Your task to perform on an android device: toggle improve location accuracy Image 0: 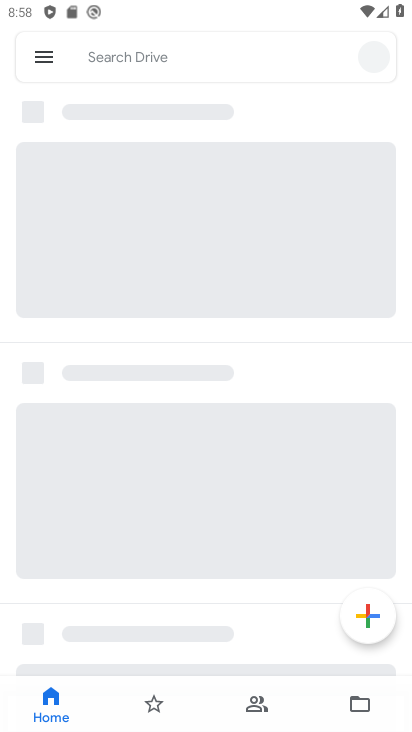
Step 0: press back button
Your task to perform on an android device: toggle improve location accuracy Image 1: 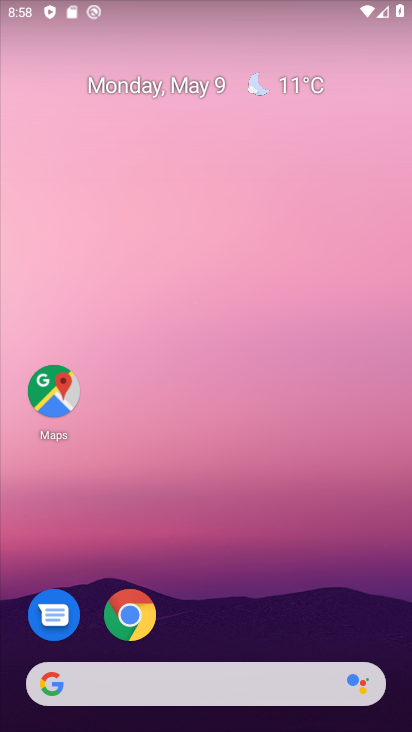
Step 1: drag from (246, 383) to (224, 0)
Your task to perform on an android device: toggle improve location accuracy Image 2: 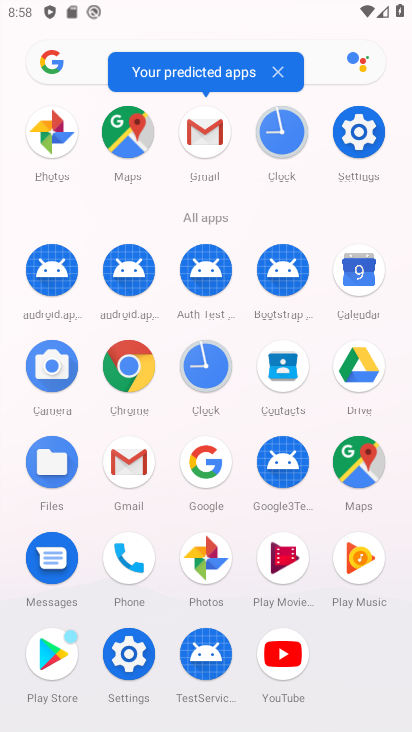
Step 2: drag from (13, 596) to (28, 265)
Your task to perform on an android device: toggle improve location accuracy Image 3: 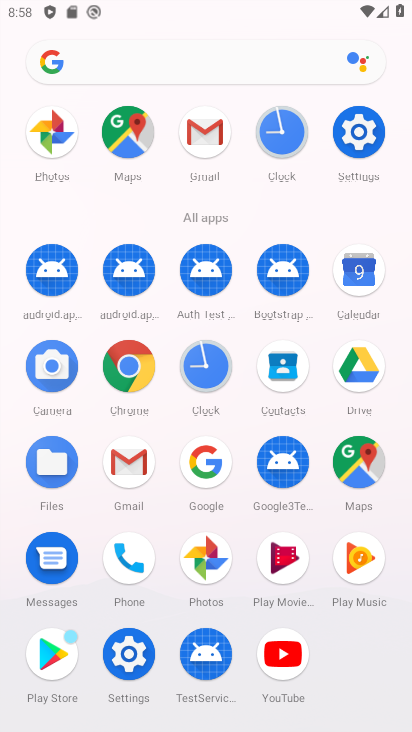
Step 3: click (356, 463)
Your task to perform on an android device: toggle improve location accuracy Image 4: 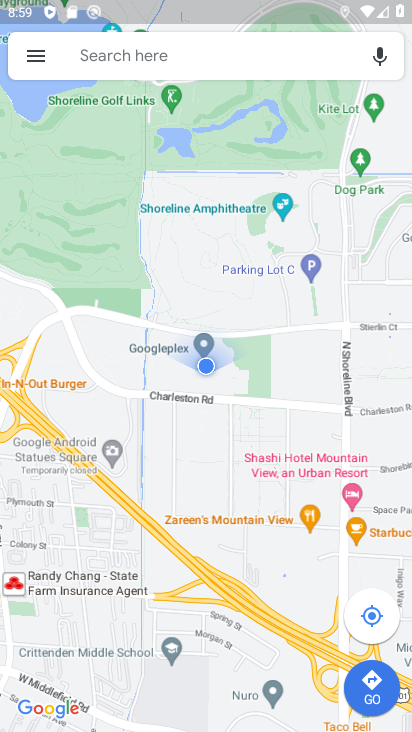
Step 4: click (26, 58)
Your task to perform on an android device: toggle improve location accuracy Image 5: 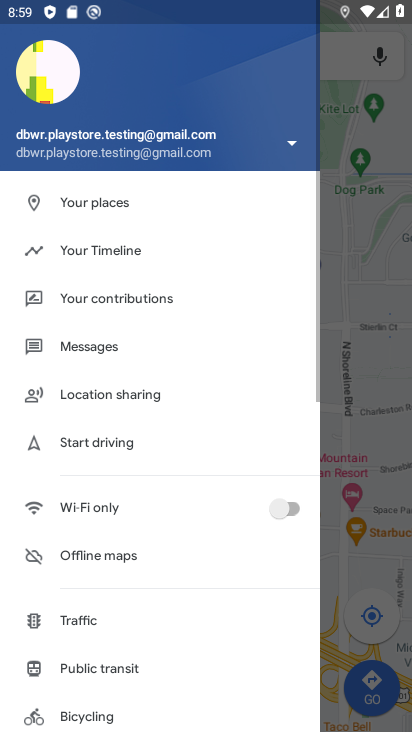
Step 5: drag from (143, 597) to (158, 193)
Your task to perform on an android device: toggle improve location accuracy Image 6: 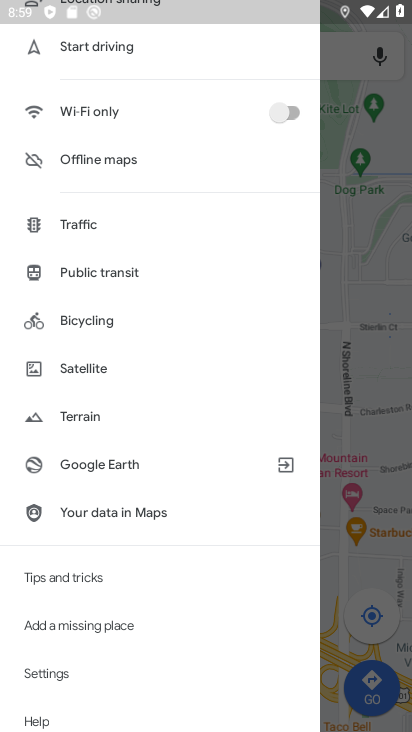
Step 6: click (91, 680)
Your task to perform on an android device: toggle improve location accuracy Image 7: 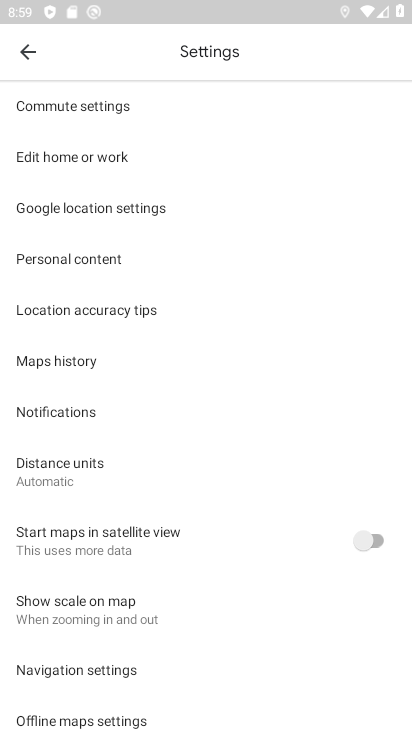
Step 7: click (205, 635)
Your task to perform on an android device: toggle improve location accuracy Image 8: 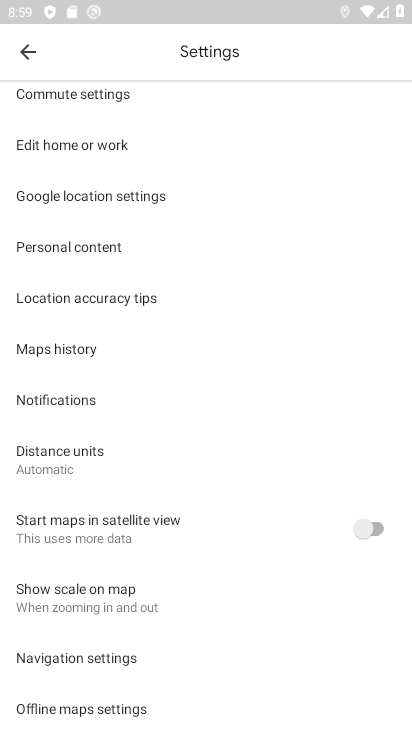
Step 8: click (129, 199)
Your task to perform on an android device: toggle improve location accuracy Image 9: 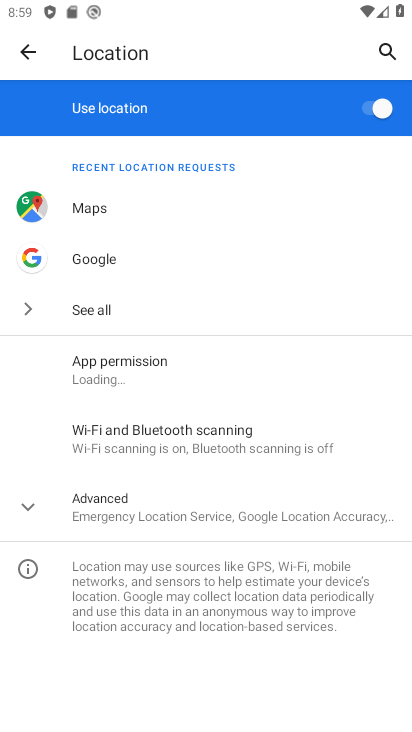
Step 9: click (171, 509)
Your task to perform on an android device: toggle improve location accuracy Image 10: 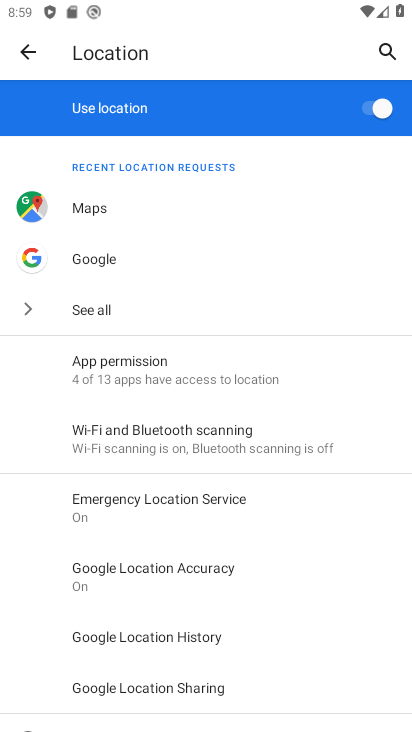
Step 10: click (212, 567)
Your task to perform on an android device: toggle improve location accuracy Image 11: 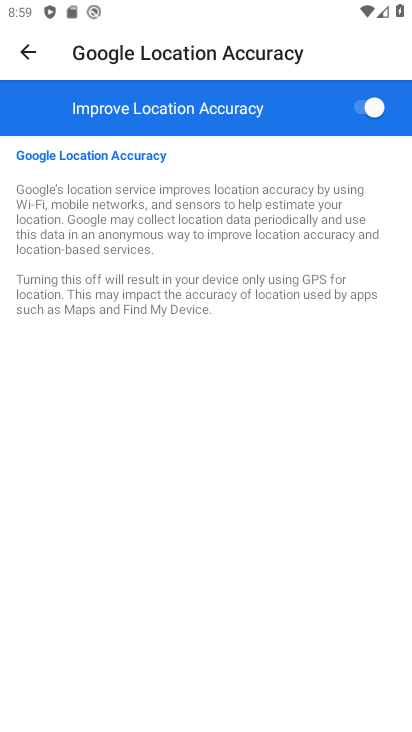
Step 11: click (363, 102)
Your task to perform on an android device: toggle improve location accuracy Image 12: 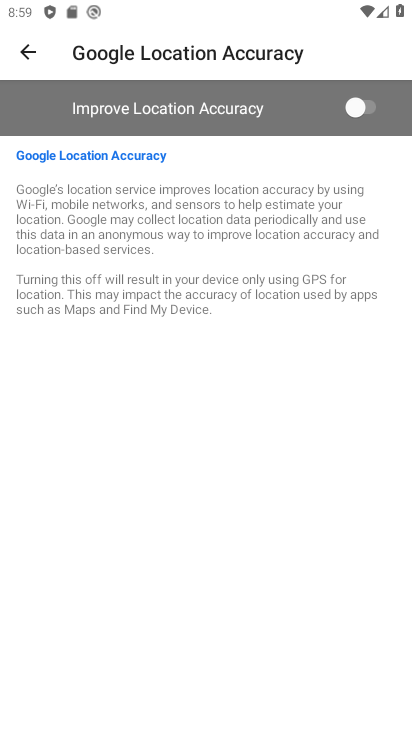
Step 12: task complete